Your task to perform on an android device: turn notification dots on Image 0: 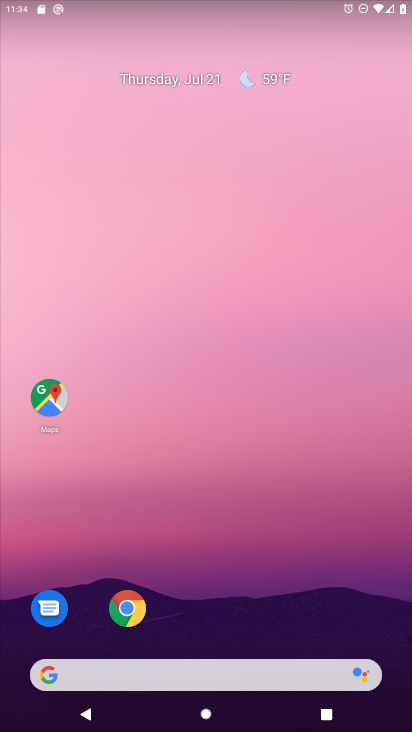
Step 0: drag from (401, 647) to (195, 25)
Your task to perform on an android device: turn notification dots on Image 1: 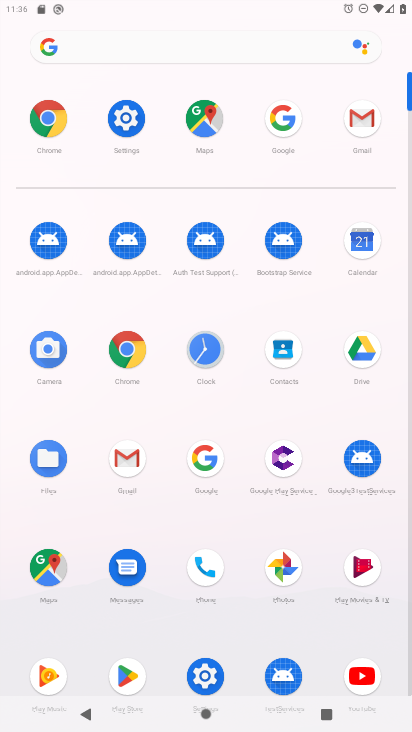
Step 1: click (196, 665)
Your task to perform on an android device: turn notification dots on Image 2: 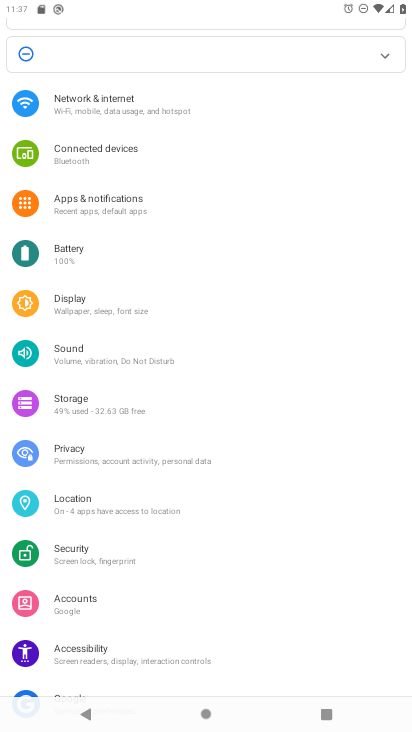
Step 2: click (121, 206)
Your task to perform on an android device: turn notification dots on Image 3: 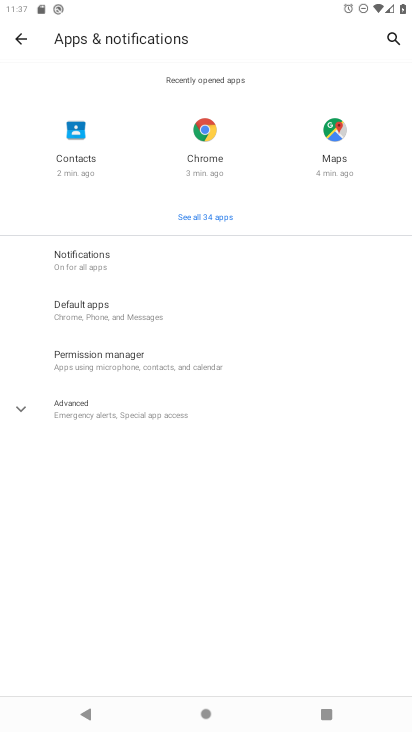
Step 3: click (83, 269)
Your task to perform on an android device: turn notification dots on Image 4: 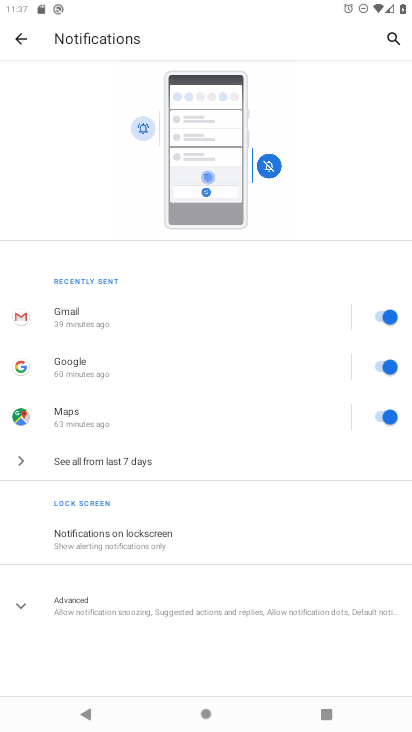
Step 4: click (102, 620)
Your task to perform on an android device: turn notification dots on Image 5: 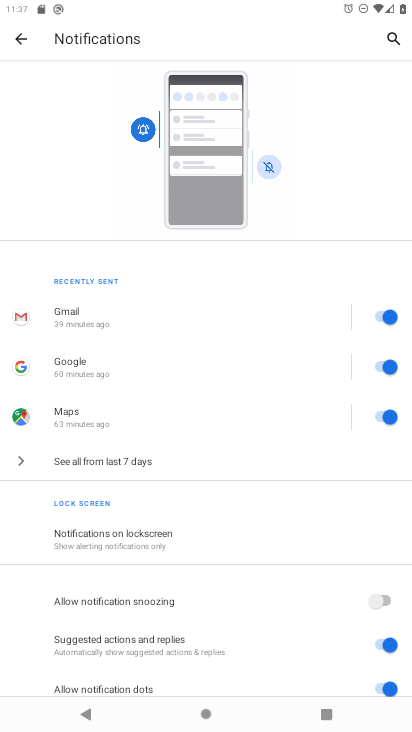
Step 5: task complete